Your task to perform on an android device: toggle pop-ups in chrome Image 0: 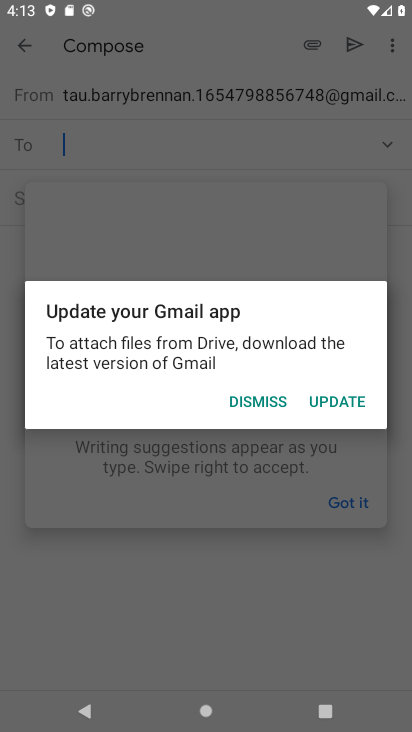
Step 0: press back button
Your task to perform on an android device: toggle pop-ups in chrome Image 1: 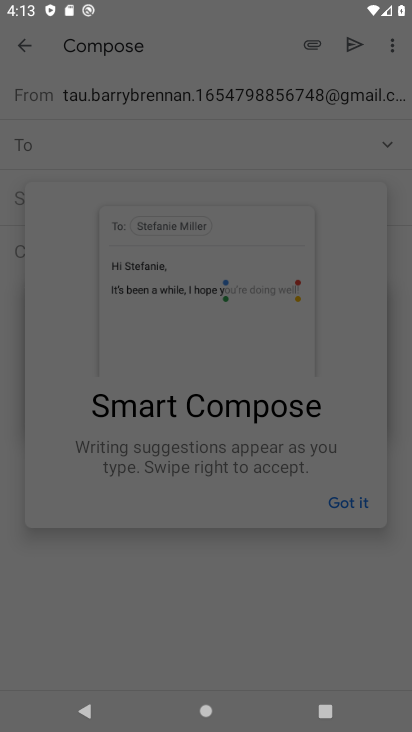
Step 1: press home button
Your task to perform on an android device: toggle pop-ups in chrome Image 2: 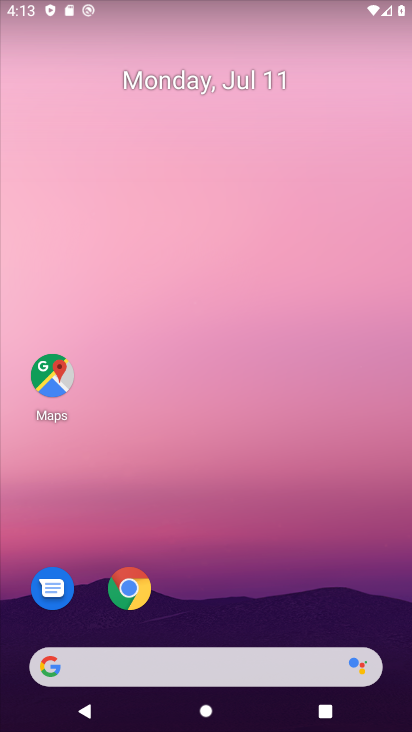
Step 2: drag from (263, 400) to (290, 200)
Your task to perform on an android device: toggle pop-ups in chrome Image 3: 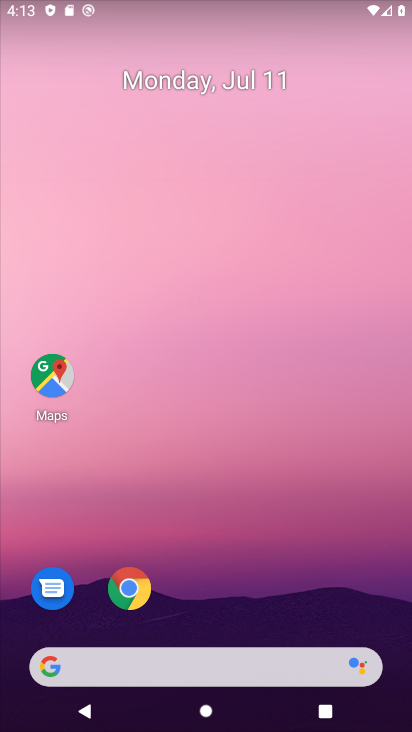
Step 3: drag from (269, 646) to (257, 224)
Your task to perform on an android device: toggle pop-ups in chrome Image 4: 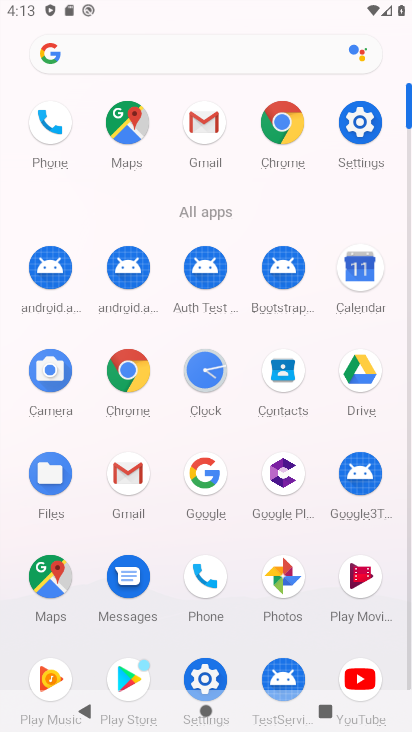
Step 4: click (291, 111)
Your task to perform on an android device: toggle pop-ups in chrome Image 5: 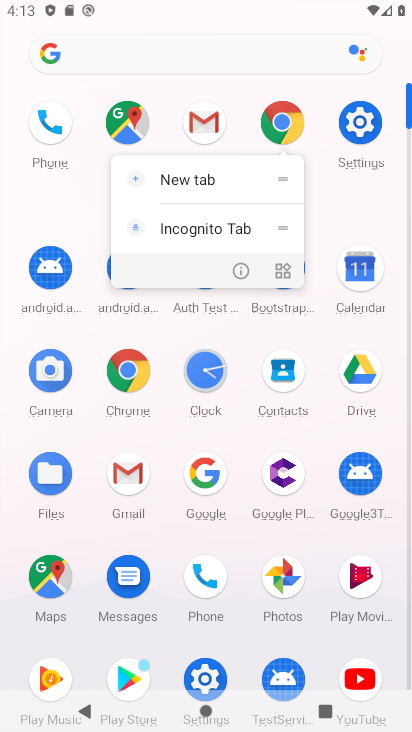
Step 5: click (277, 118)
Your task to perform on an android device: toggle pop-ups in chrome Image 6: 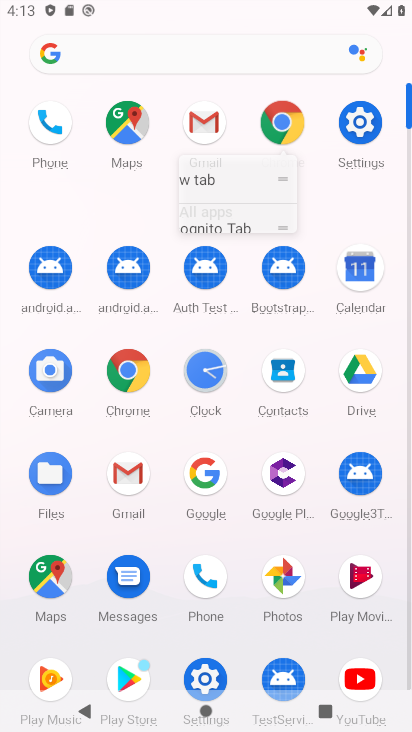
Step 6: click (278, 117)
Your task to perform on an android device: toggle pop-ups in chrome Image 7: 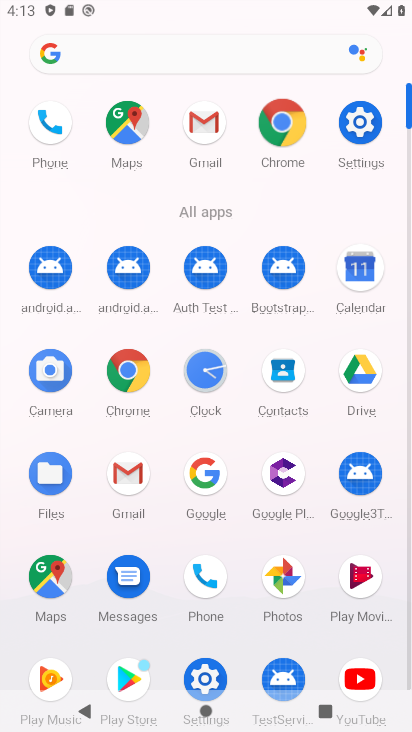
Step 7: click (278, 116)
Your task to perform on an android device: toggle pop-ups in chrome Image 8: 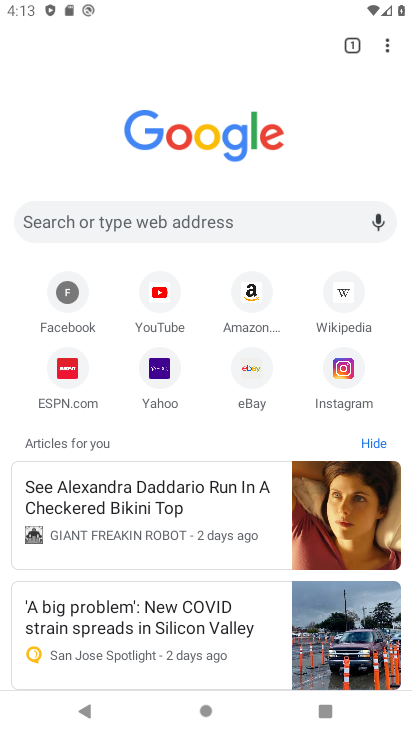
Step 8: click (392, 39)
Your task to perform on an android device: toggle pop-ups in chrome Image 9: 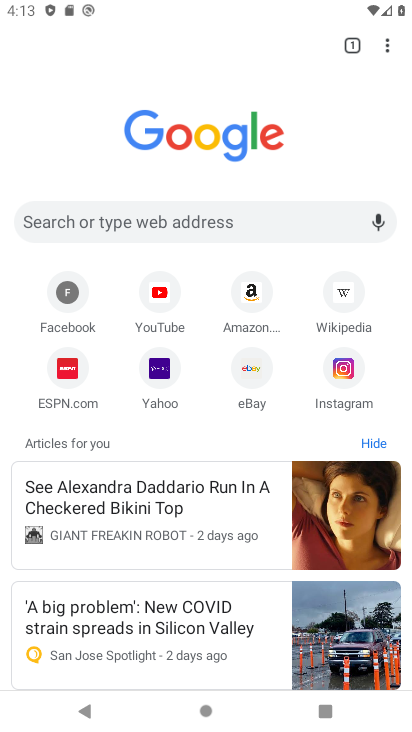
Step 9: click (390, 41)
Your task to perform on an android device: toggle pop-ups in chrome Image 10: 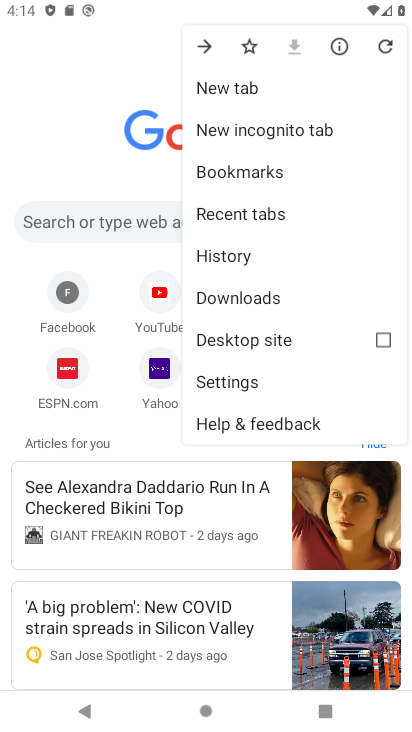
Step 10: click (208, 382)
Your task to perform on an android device: toggle pop-ups in chrome Image 11: 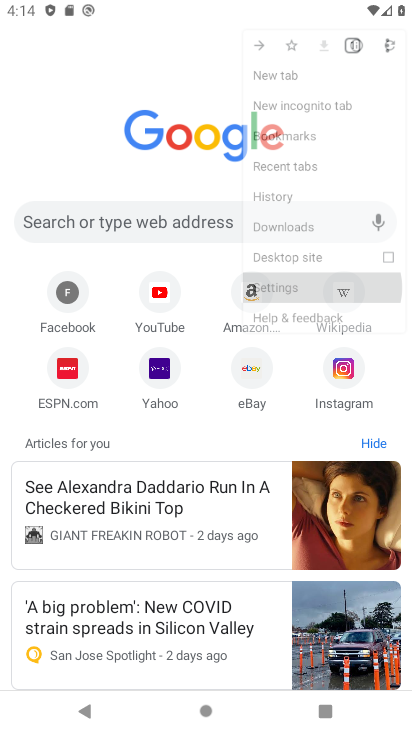
Step 11: click (209, 380)
Your task to perform on an android device: toggle pop-ups in chrome Image 12: 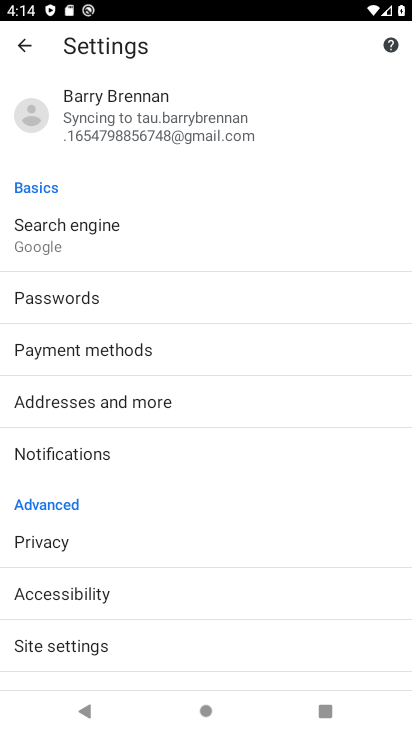
Step 12: drag from (69, 484) to (42, 278)
Your task to perform on an android device: toggle pop-ups in chrome Image 13: 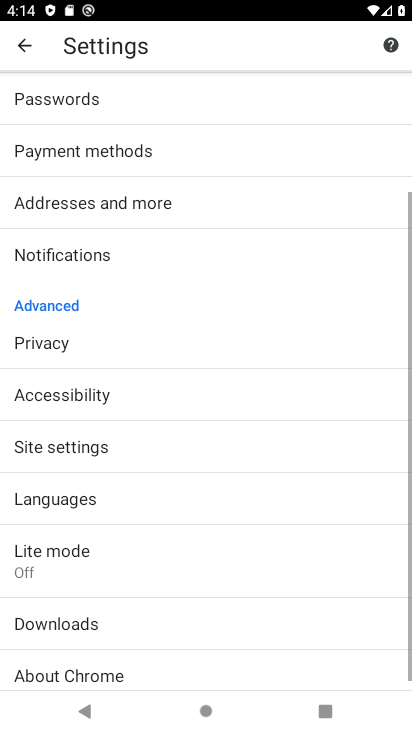
Step 13: drag from (92, 538) to (77, 303)
Your task to perform on an android device: toggle pop-ups in chrome Image 14: 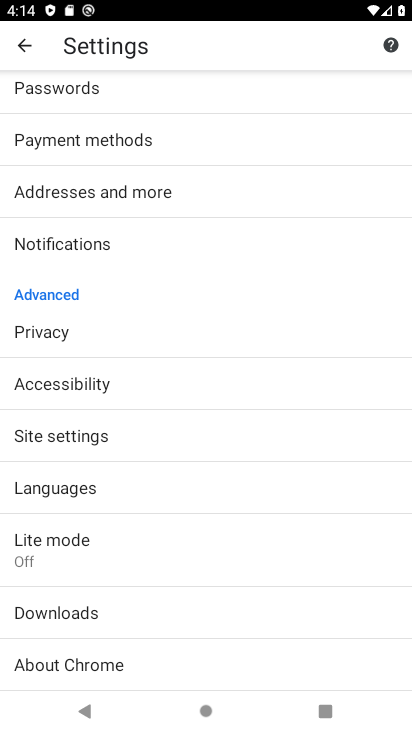
Step 14: drag from (153, 428) to (153, 257)
Your task to perform on an android device: toggle pop-ups in chrome Image 15: 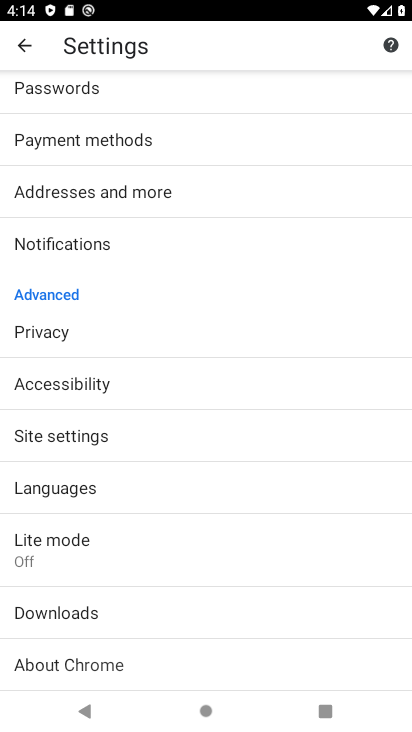
Step 15: drag from (175, 526) to (183, 293)
Your task to perform on an android device: toggle pop-ups in chrome Image 16: 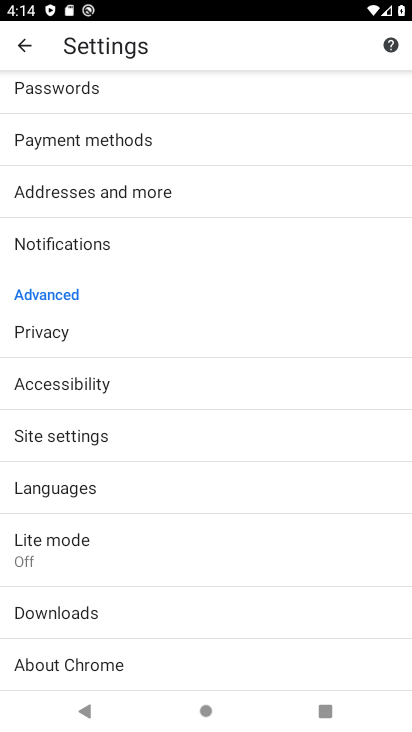
Step 16: drag from (195, 260) to (189, 534)
Your task to perform on an android device: toggle pop-ups in chrome Image 17: 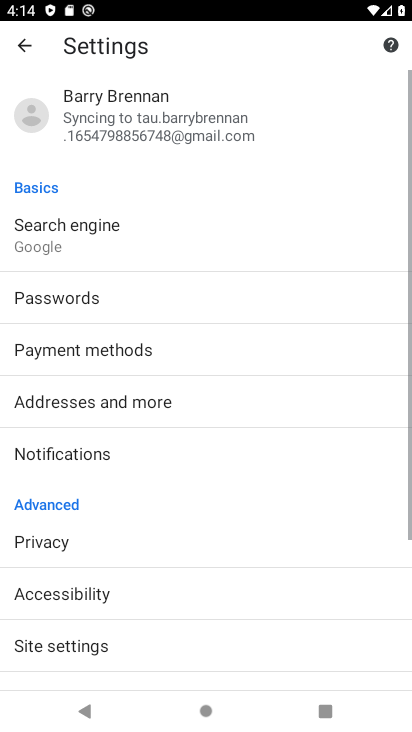
Step 17: drag from (167, 400) to (172, 458)
Your task to perform on an android device: toggle pop-ups in chrome Image 18: 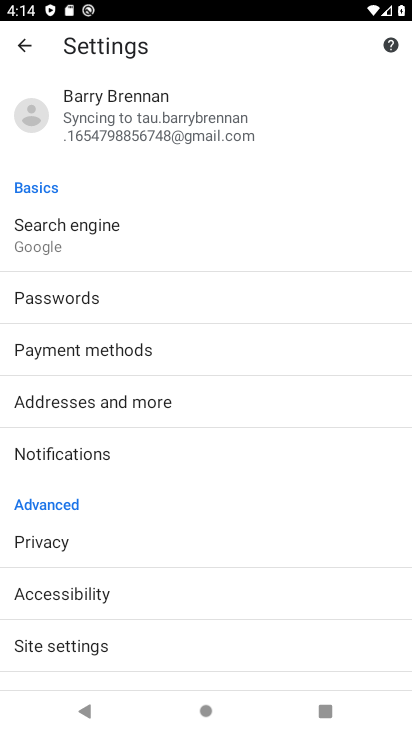
Step 18: drag from (184, 604) to (260, 233)
Your task to perform on an android device: toggle pop-ups in chrome Image 19: 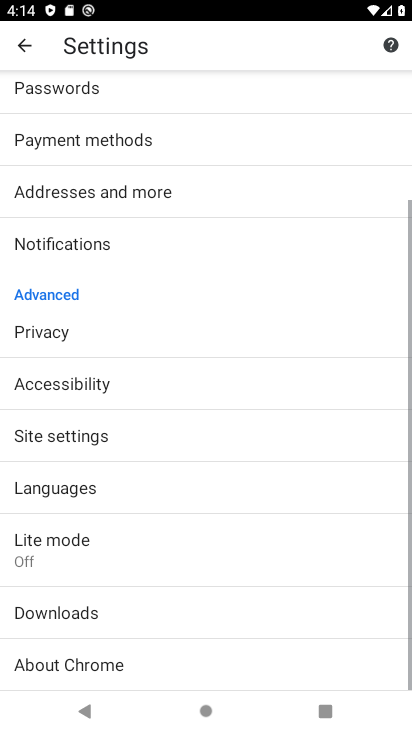
Step 19: drag from (197, 576) to (209, 281)
Your task to perform on an android device: toggle pop-ups in chrome Image 20: 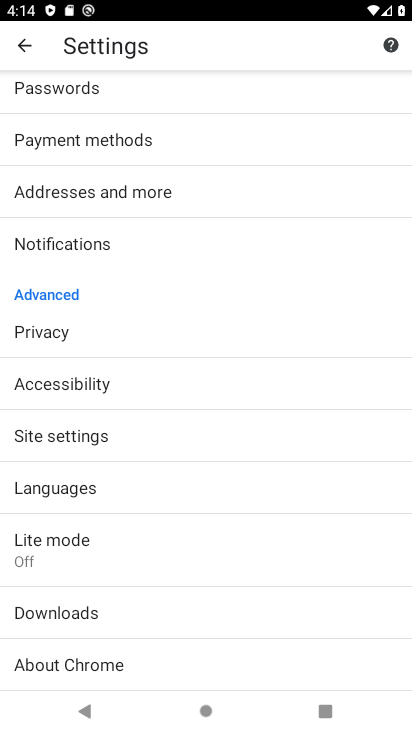
Step 20: click (45, 431)
Your task to perform on an android device: toggle pop-ups in chrome Image 21: 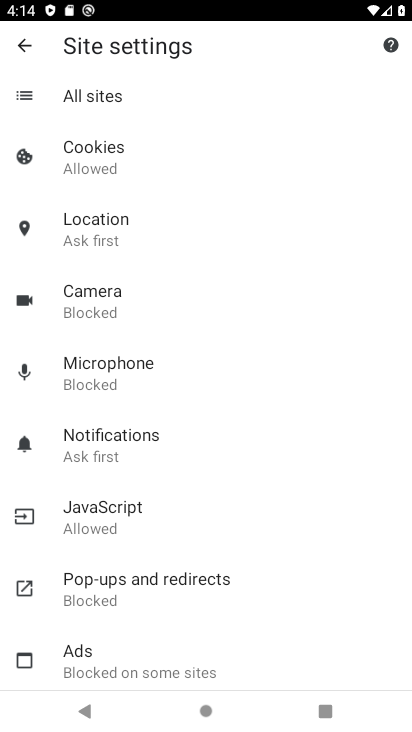
Step 21: click (106, 586)
Your task to perform on an android device: toggle pop-ups in chrome Image 22: 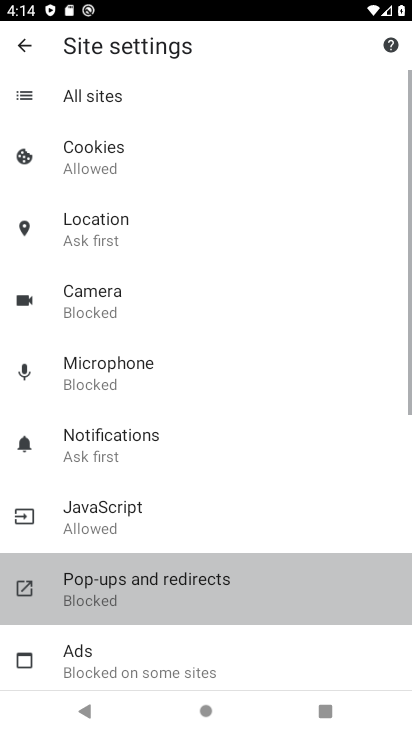
Step 22: click (106, 586)
Your task to perform on an android device: toggle pop-ups in chrome Image 23: 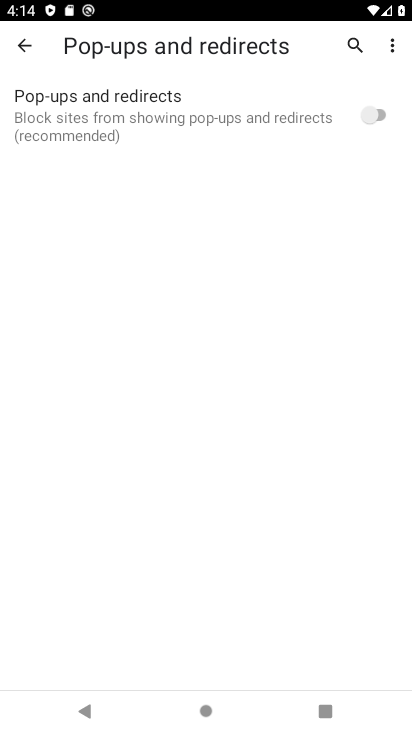
Step 23: click (369, 117)
Your task to perform on an android device: toggle pop-ups in chrome Image 24: 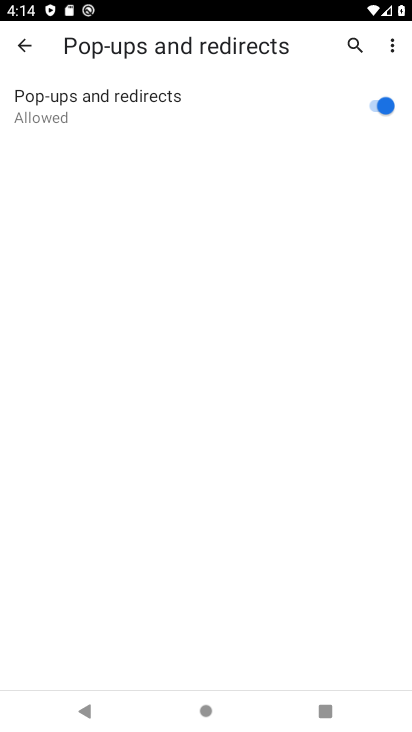
Step 24: task complete